Your task to perform on an android device: change timer sound Image 0: 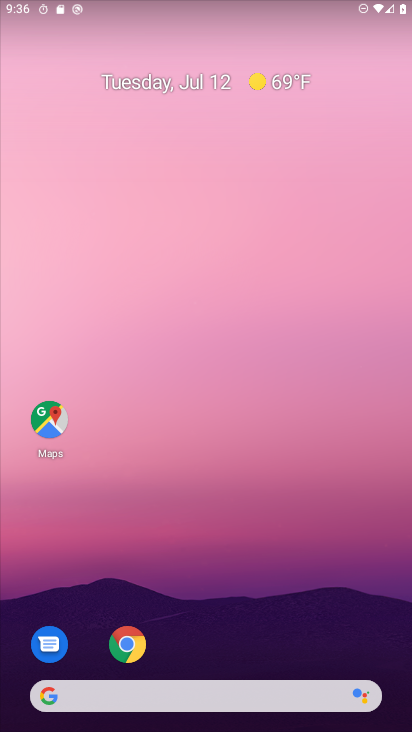
Step 0: press home button
Your task to perform on an android device: change timer sound Image 1: 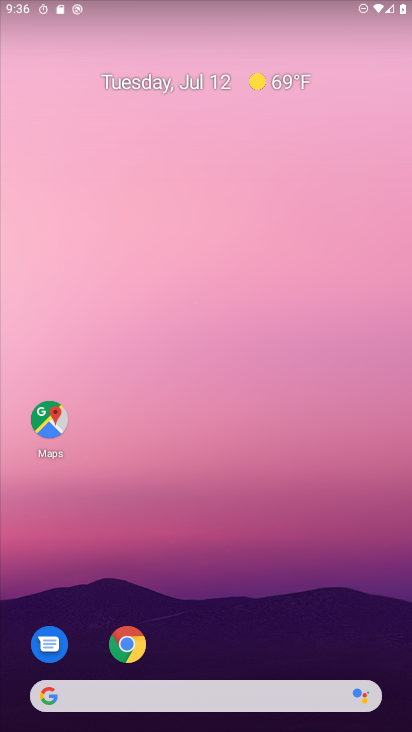
Step 1: drag from (212, 473) to (209, 35)
Your task to perform on an android device: change timer sound Image 2: 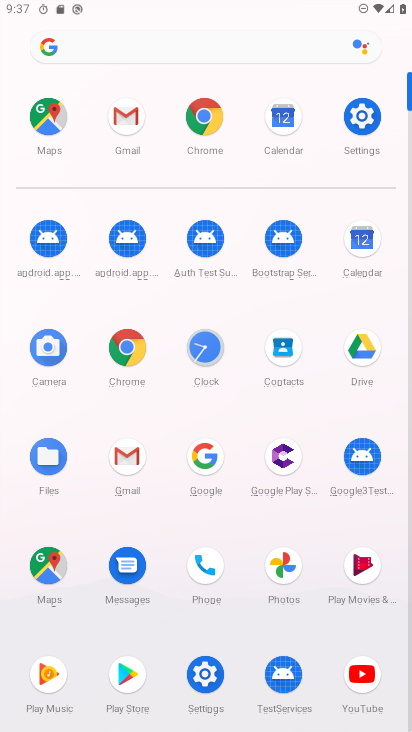
Step 2: click (199, 337)
Your task to perform on an android device: change timer sound Image 3: 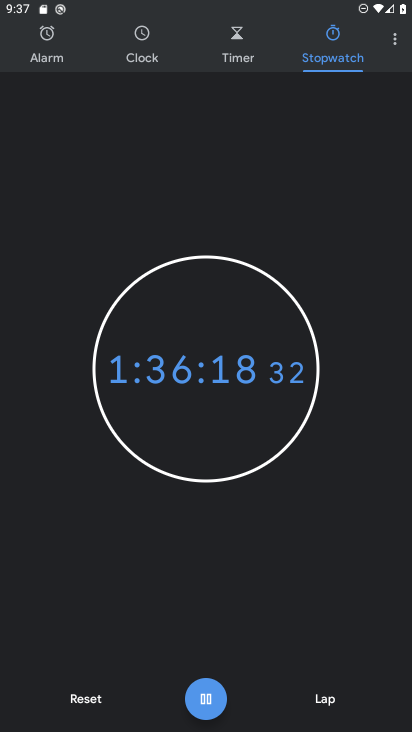
Step 3: click (83, 699)
Your task to perform on an android device: change timer sound Image 4: 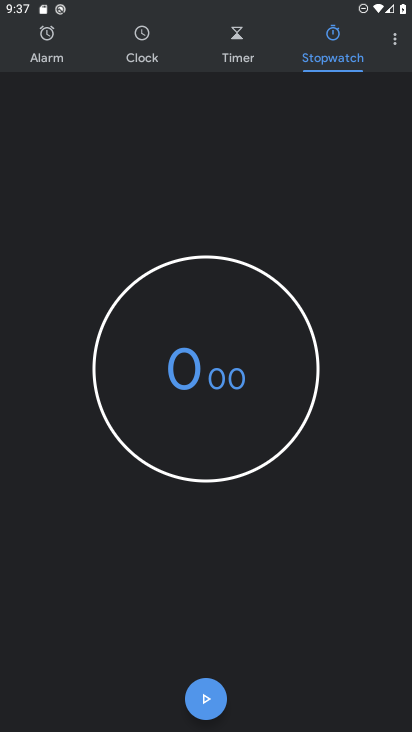
Step 4: click (398, 47)
Your task to perform on an android device: change timer sound Image 5: 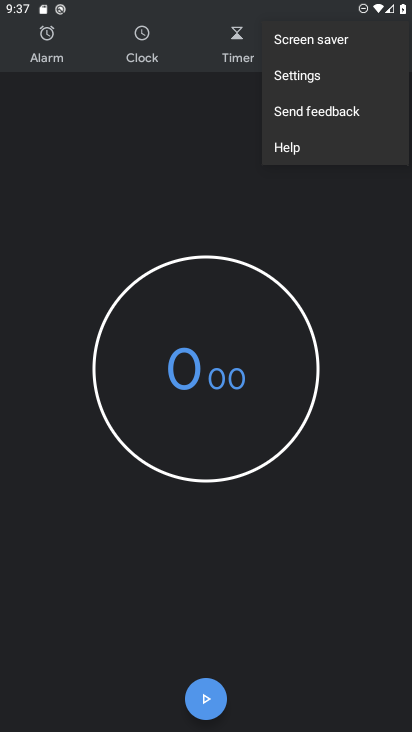
Step 5: click (329, 77)
Your task to perform on an android device: change timer sound Image 6: 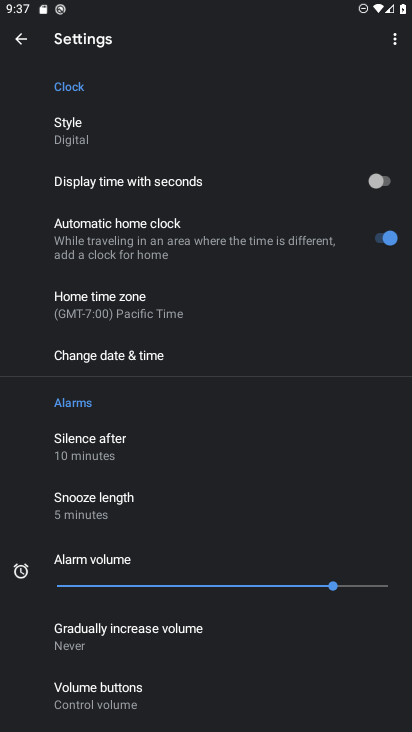
Step 6: drag from (191, 554) to (224, 62)
Your task to perform on an android device: change timer sound Image 7: 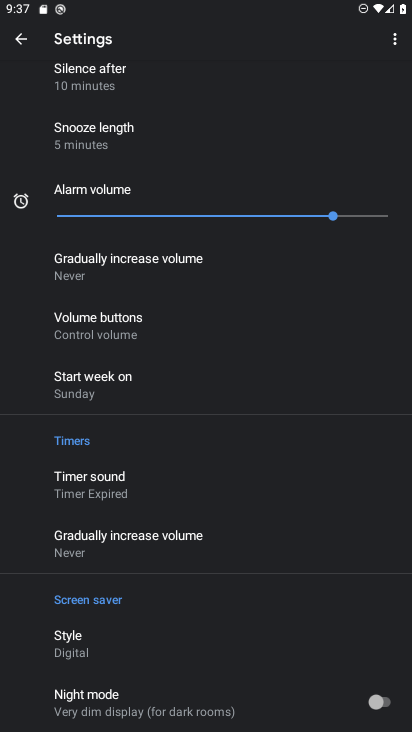
Step 7: click (140, 479)
Your task to perform on an android device: change timer sound Image 8: 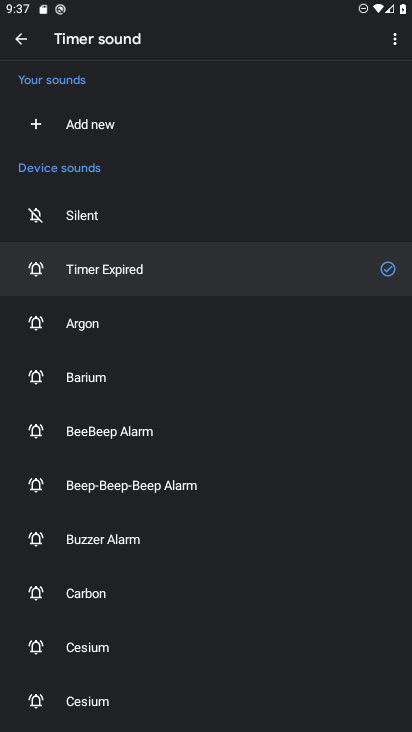
Step 8: click (110, 488)
Your task to perform on an android device: change timer sound Image 9: 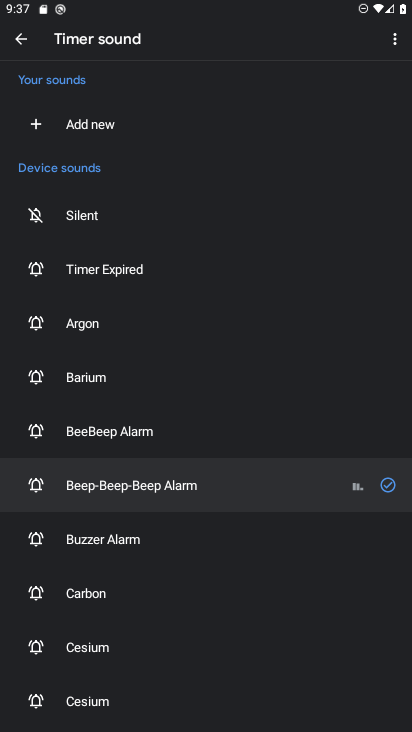
Step 9: task complete